Your task to perform on an android device: Open wifi settings Image 0: 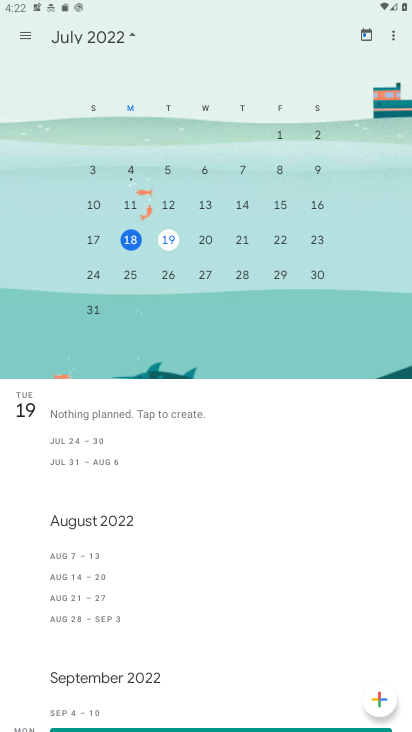
Step 0: press home button
Your task to perform on an android device: Open wifi settings Image 1: 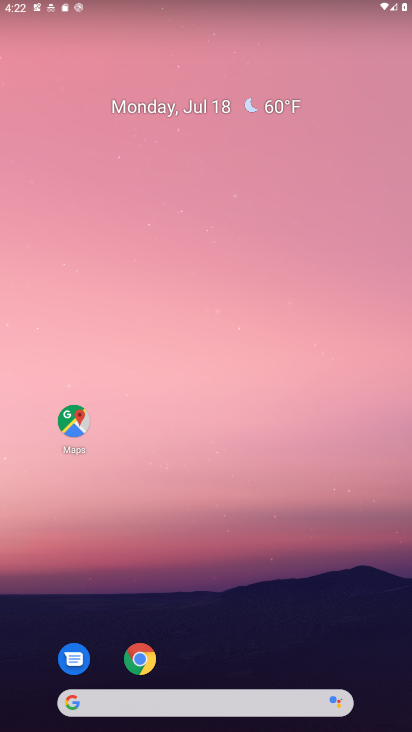
Step 1: drag from (180, 621) to (283, 0)
Your task to perform on an android device: Open wifi settings Image 2: 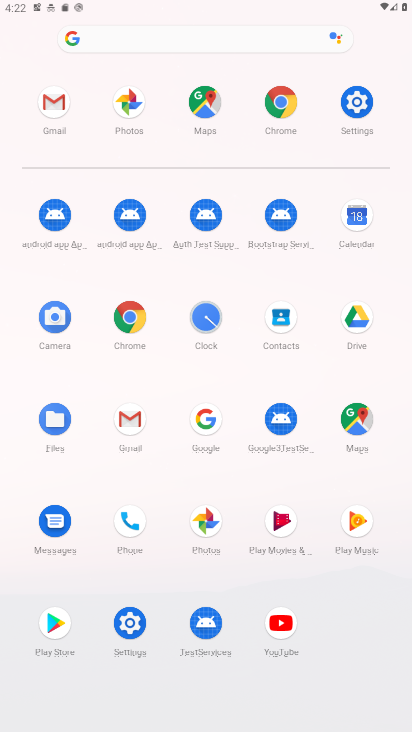
Step 2: click (356, 106)
Your task to perform on an android device: Open wifi settings Image 3: 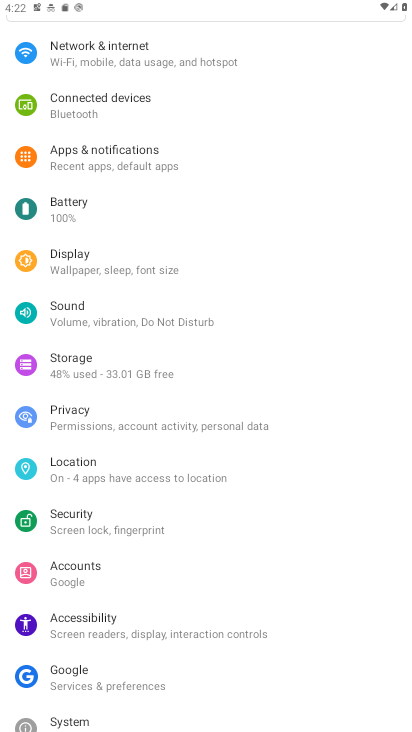
Step 3: click (137, 53)
Your task to perform on an android device: Open wifi settings Image 4: 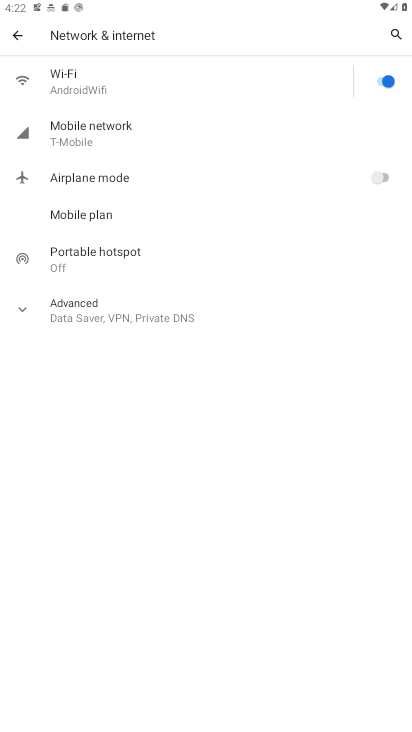
Step 4: click (125, 87)
Your task to perform on an android device: Open wifi settings Image 5: 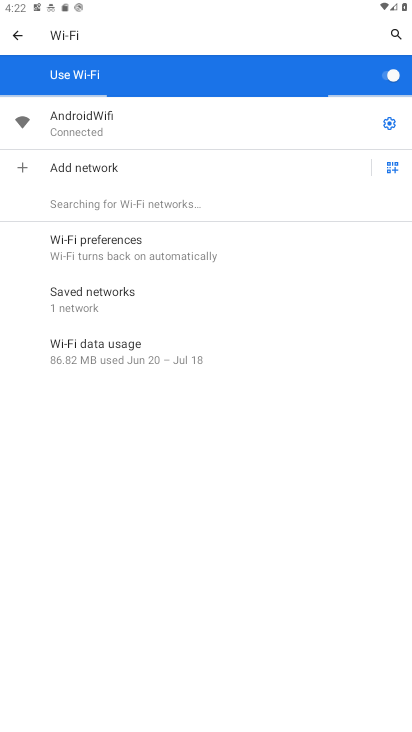
Step 5: task complete